Your task to perform on an android device: open a bookmark in the chrome app Image 0: 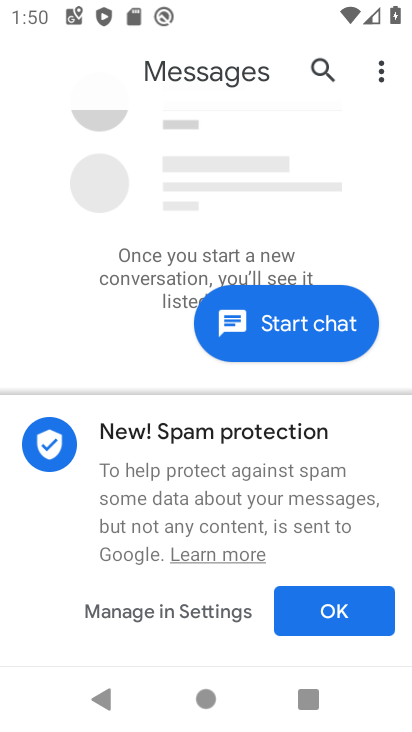
Step 0: press home button
Your task to perform on an android device: open a bookmark in the chrome app Image 1: 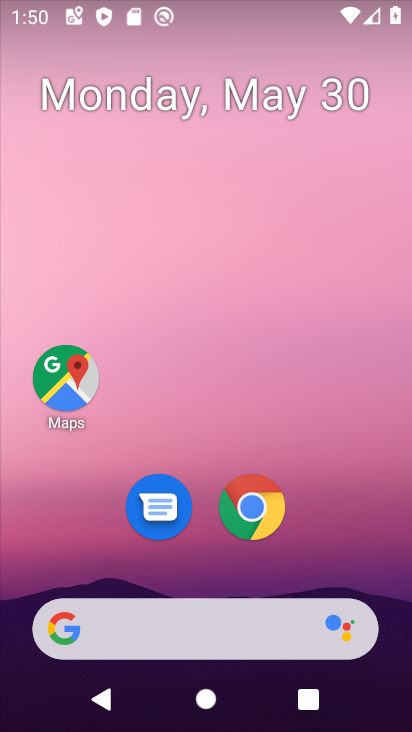
Step 1: click (262, 519)
Your task to perform on an android device: open a bookmark in the chrome app Image 2: 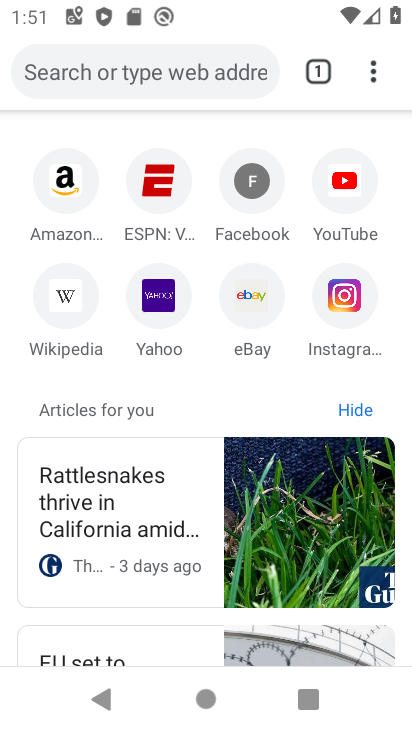
Step 2: click (374, 82)
Your task to perform on an android device: open a bookmark in the chrome app Image 3: 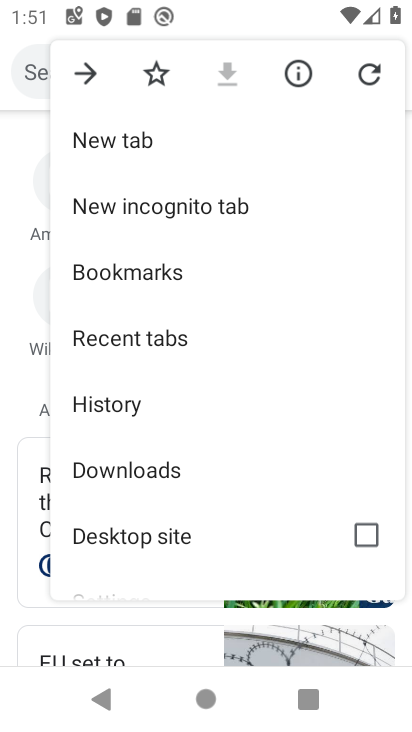
Step 3: click (110, 287)
Your task to perform on an android device: open a bookmark in the chrome app Image 4: 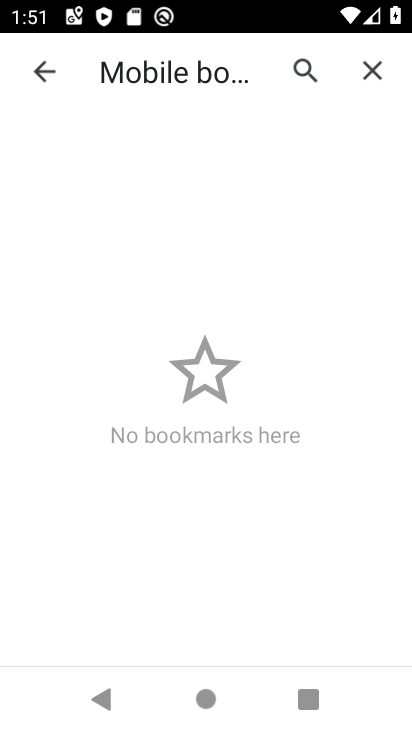
Step 4: task complete